Your task to perform on an android device: turn on the 12-hour format for clock Image 0: 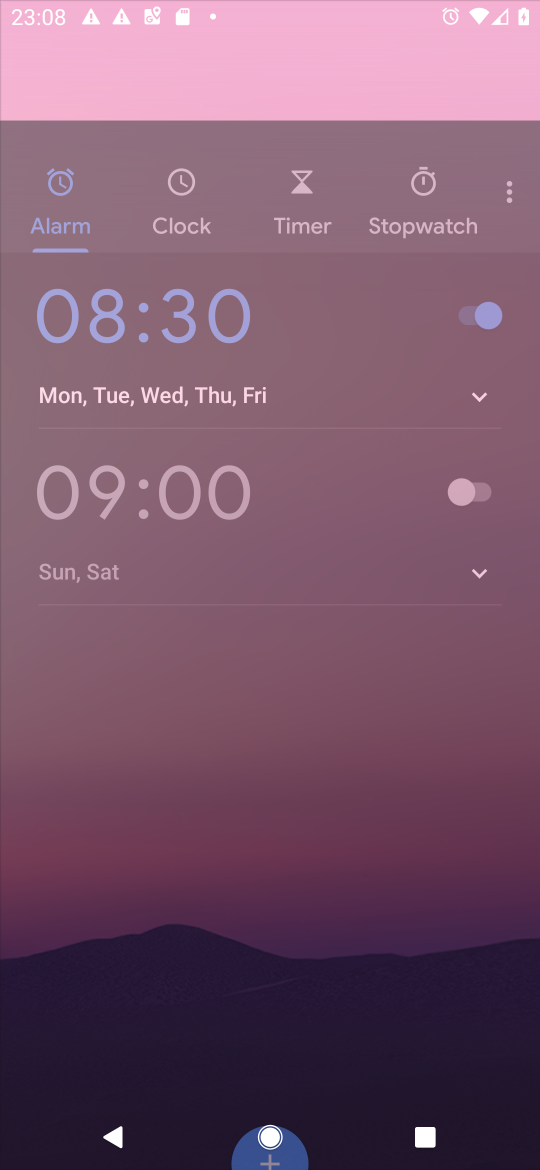
Step 0: click (275, 538)
Your task to perform on an android device: turn on the 12-hour format for clock Image 1: 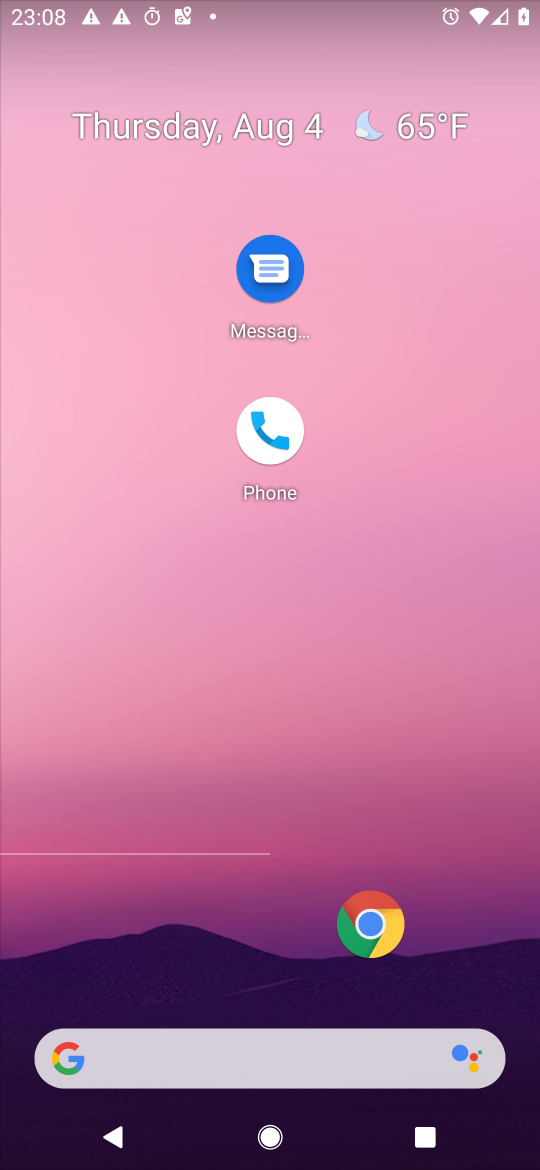
Step 1: click (319, 440)
Your task to perform on an android device: turn on the 12-hour format for clock Image 2: 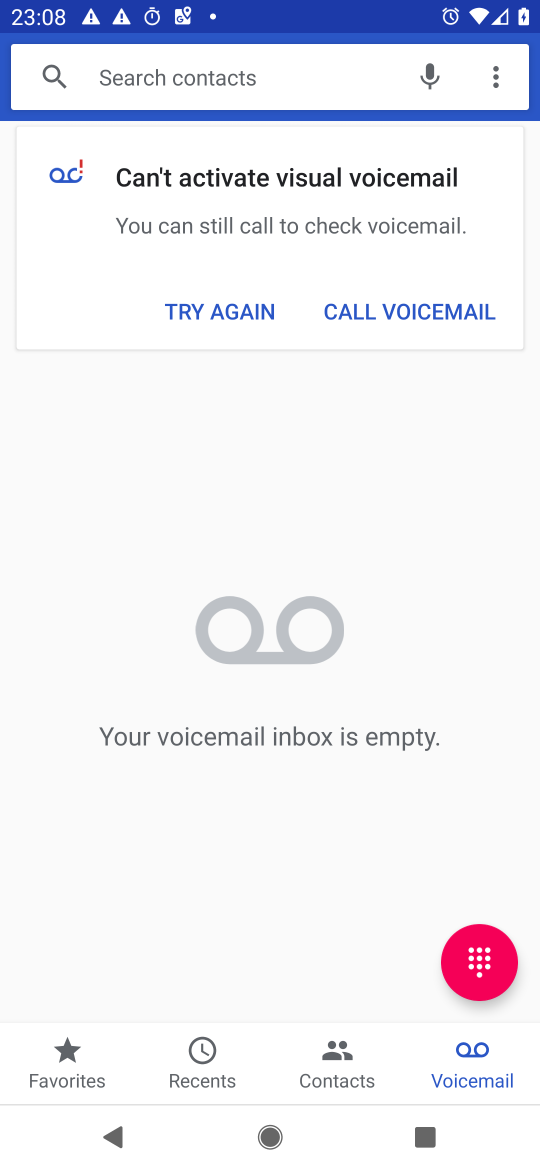
Step 2: press home button
Your task to perform on an android device: turn on the 12-hour format for clock Image 3: 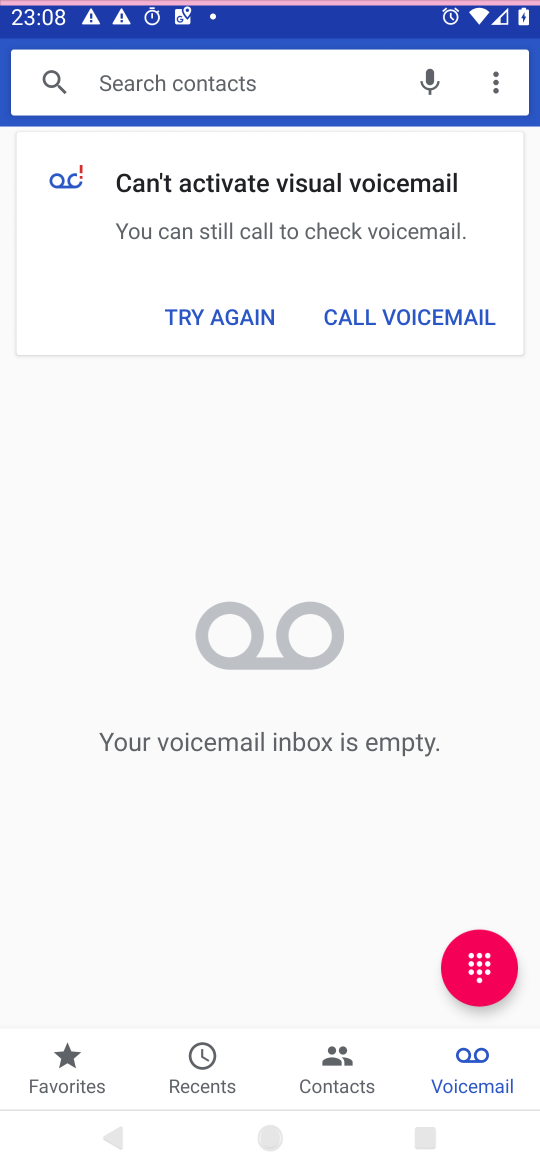
Step 3: drag from (241, 929) to (386, 4)
Your task to perform on an android device: turn on the 12-hour format for clock Image 4: 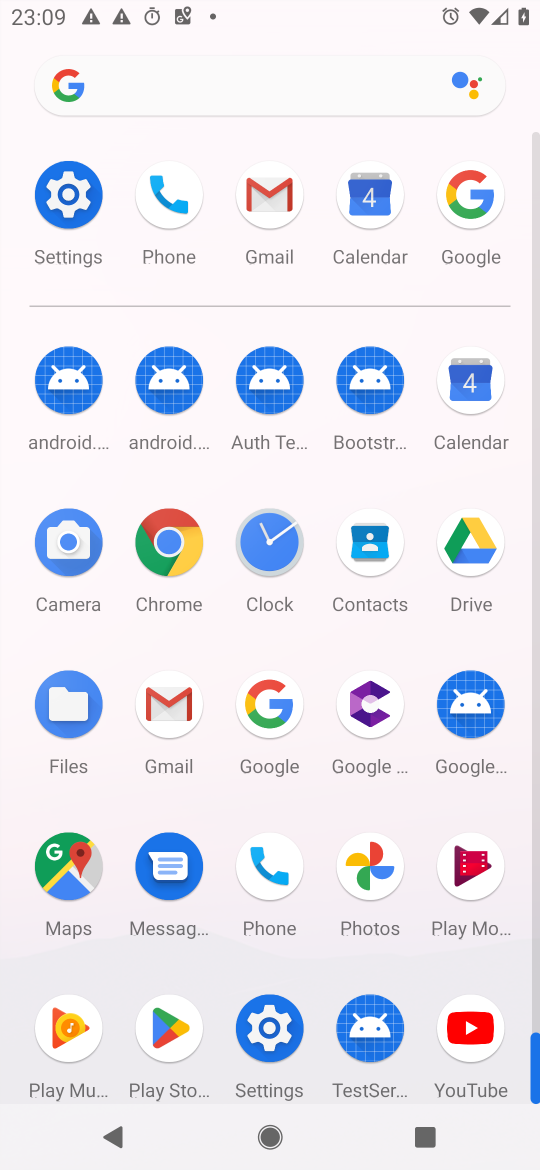
Step 4: click (250, 550)
Your task to perform on an android device: turn on the 12-hour format for clock Image 5: 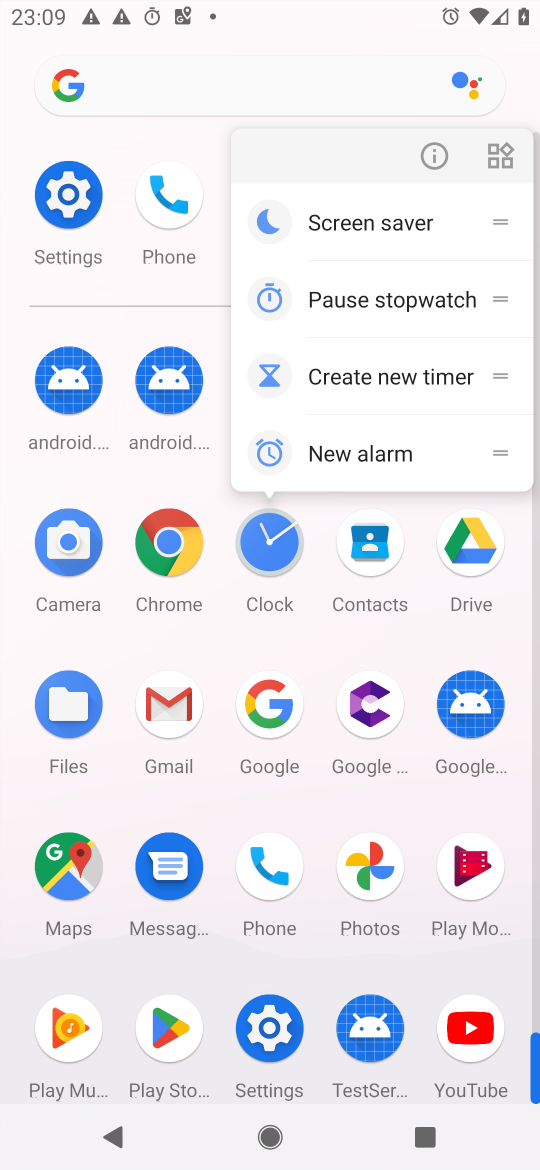
Step 5: click (431, 172)
Your task to perform on an android device: turn on the 12-hour format for clock Image 6: 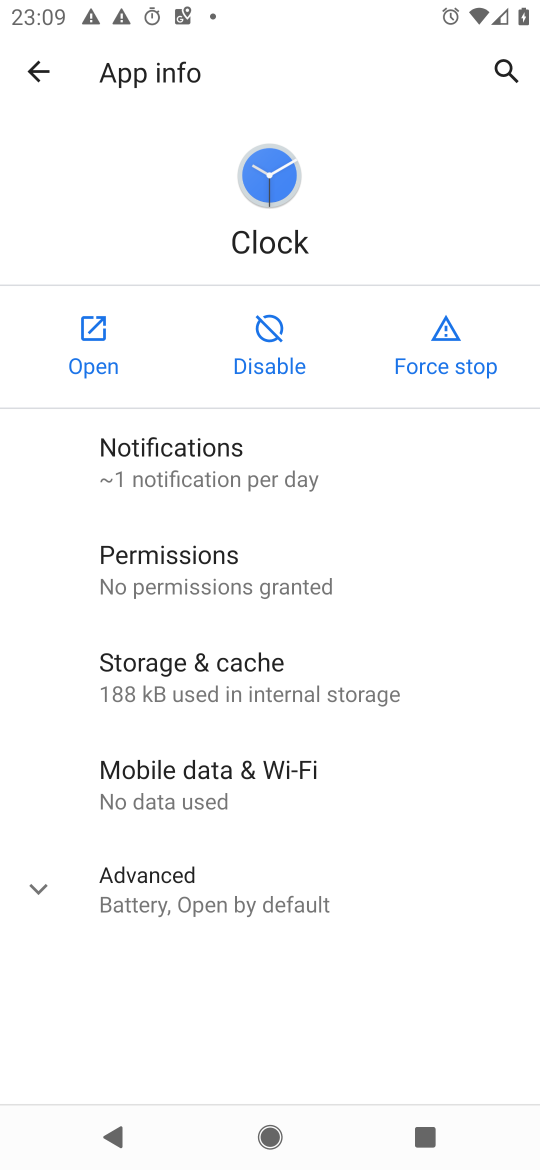
Step 6: click (116, 351)
Your task to perform on an android device: turn on the 12-hour format for clock Image 7: 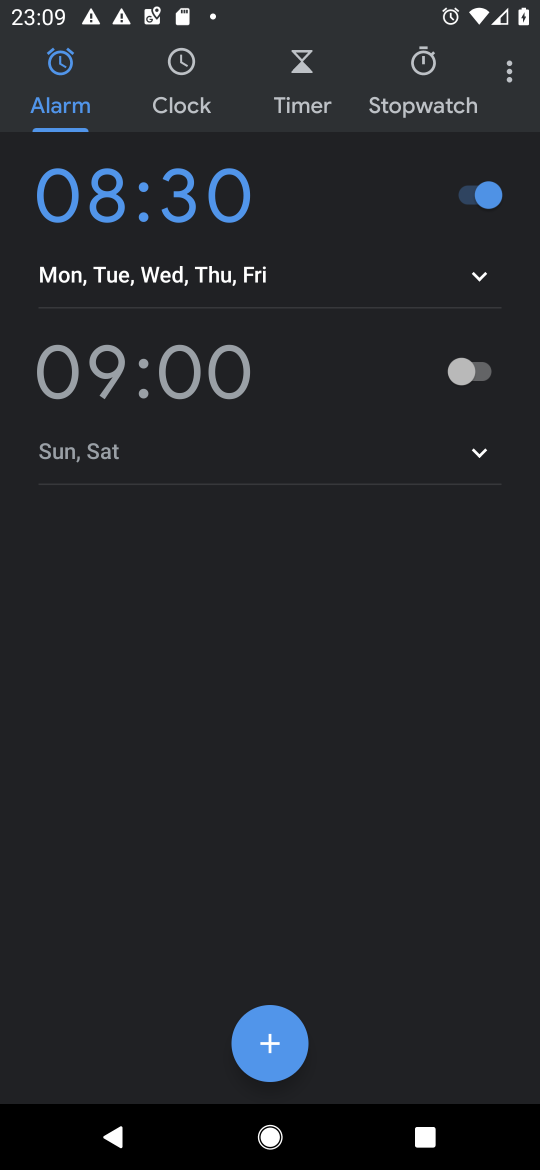
Step 7: drag from (501, 85) to (408, 139)
Your task to perform on an android device: turn on the 12-hour format for clock Image 8: 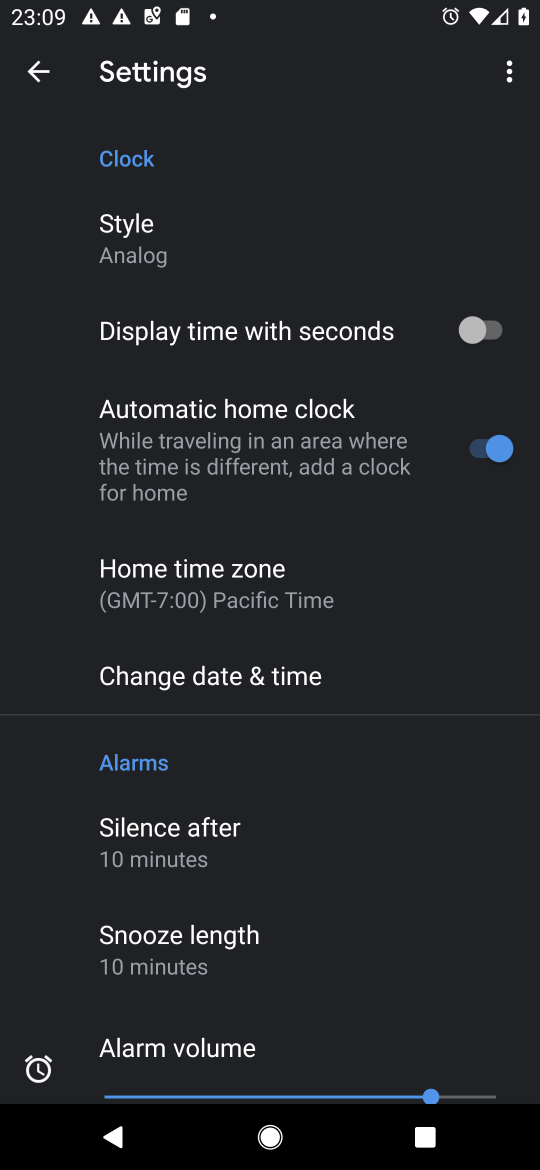
Step 8: click (228, 657)
Your task to perform on an android device: turn on the 12-hour format for clock Image 9: 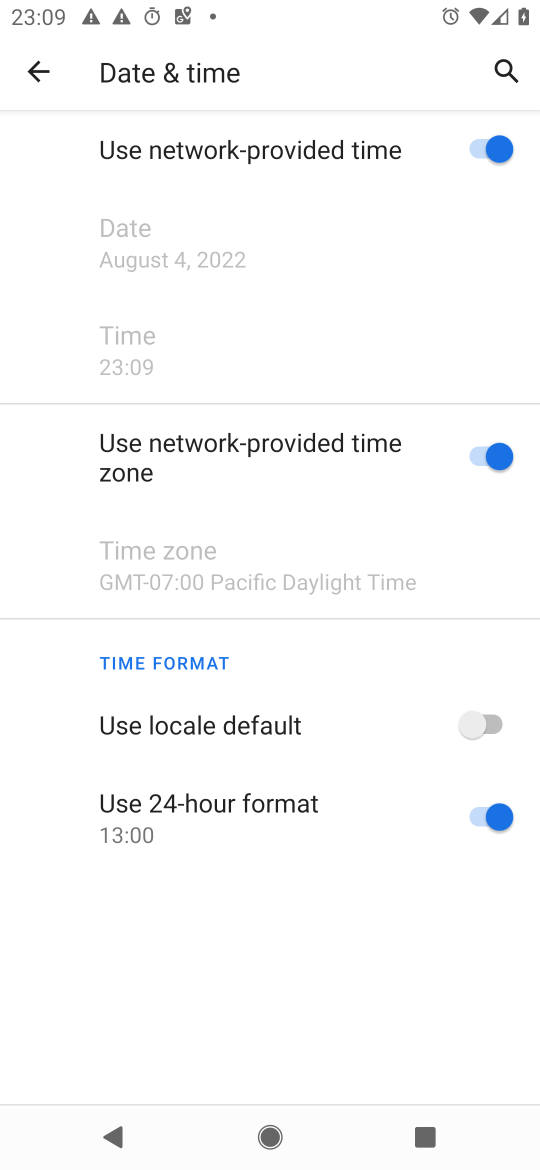
Step 9: click (489, 804)
Your task to perform on an android device: turn on the 12-hour format for clock Image 10: 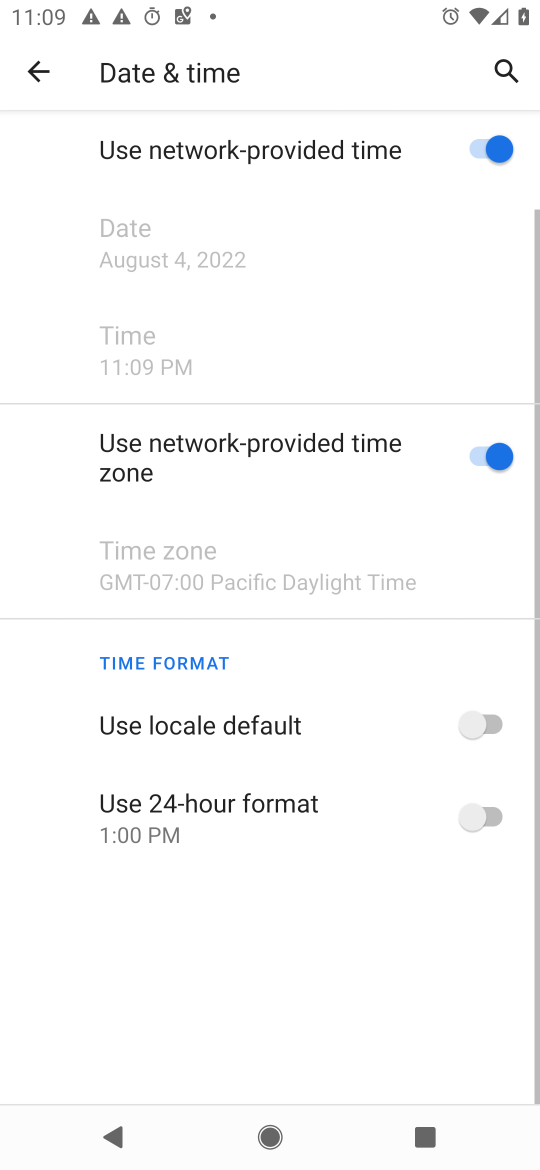
Step 10: task complete